Your task to perform on an android device: turn on improve location accuracy Image 0: 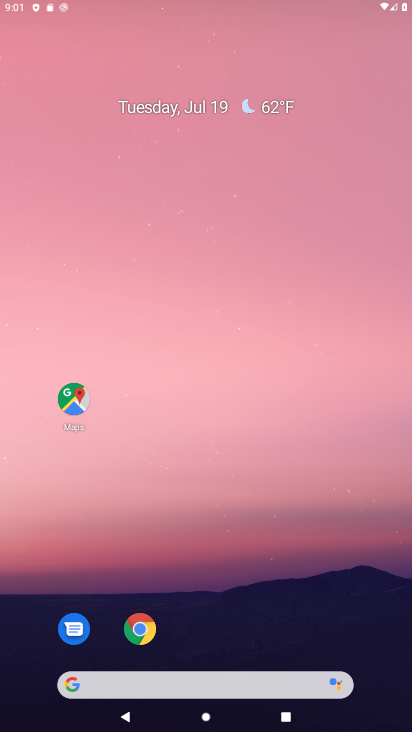
Step 0: press home button
Your task to perform on an android device: turn on improve location accuracy Image 1: 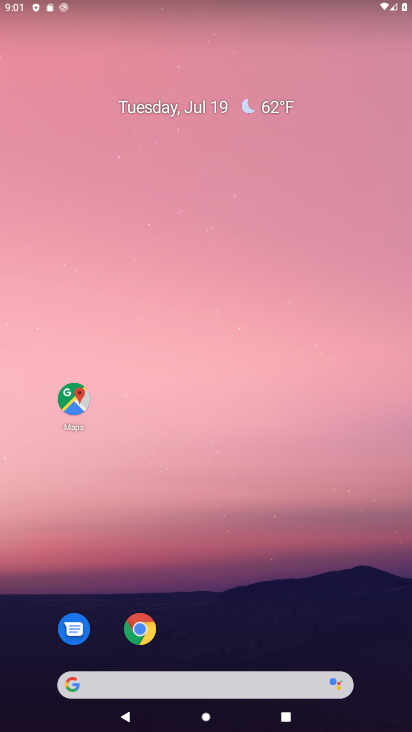
Step 1: drag from (212, 636) to (267, 295)
Your task to perform on an android device: turn on improve location accuracy Image 2: 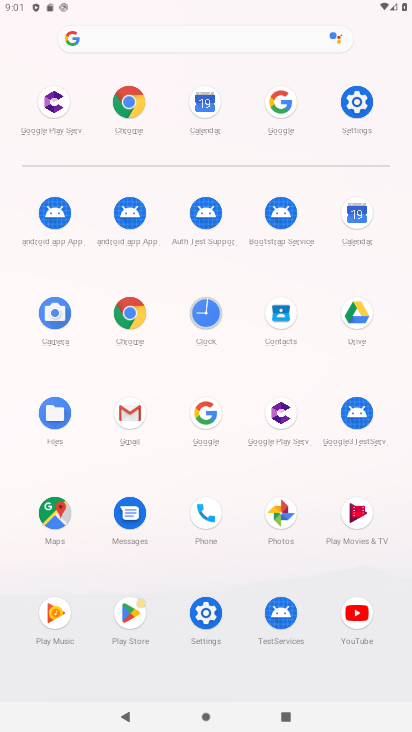
Step 2: click (353, 90)
Your task to perform on an android device: turn on improve location accuracy Image 3: 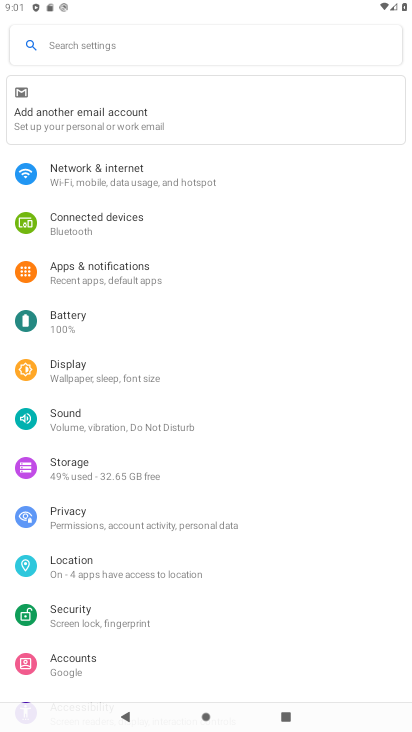
Step 3: click (97, 563)
Your task to perform on an android device: turn on improve location accuracy Image 4: 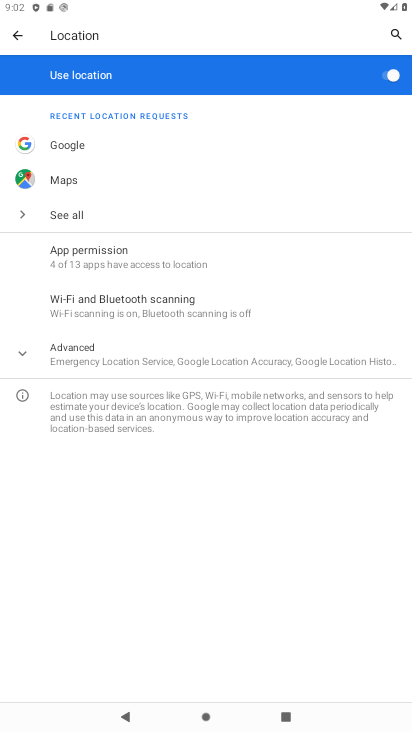
Step 4: click (17, 353)
Your task to perform on an android device: turn on improve location accuracy Image 5: 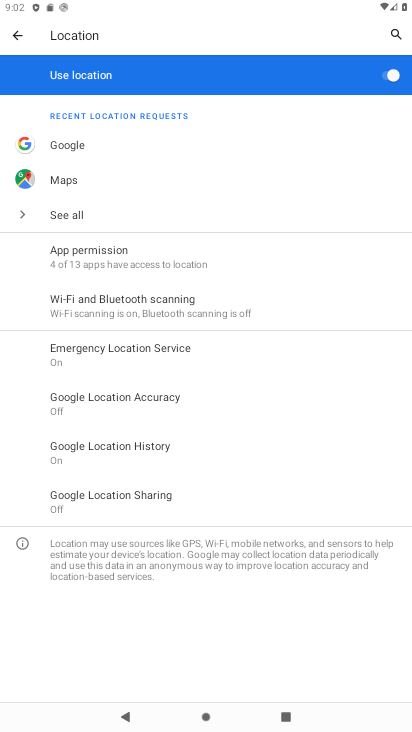
Step 5: click (135, 401)
Your task to perform on an android device: turn on improve location accuracy Image 6: 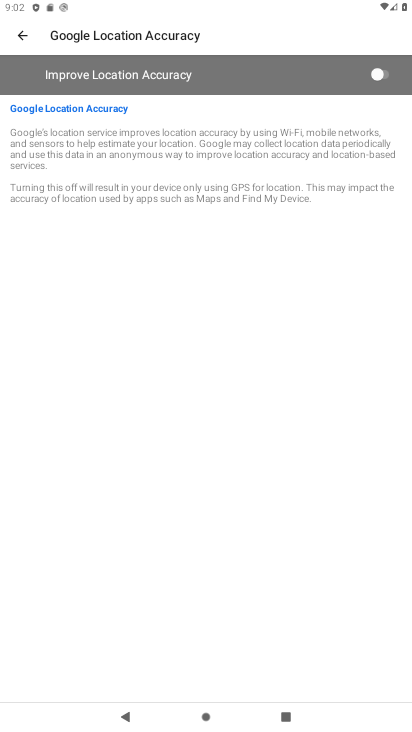
Step 6: click (377, 70)
Your task to perform on an android device: turn on improve location accuracy Image 7: 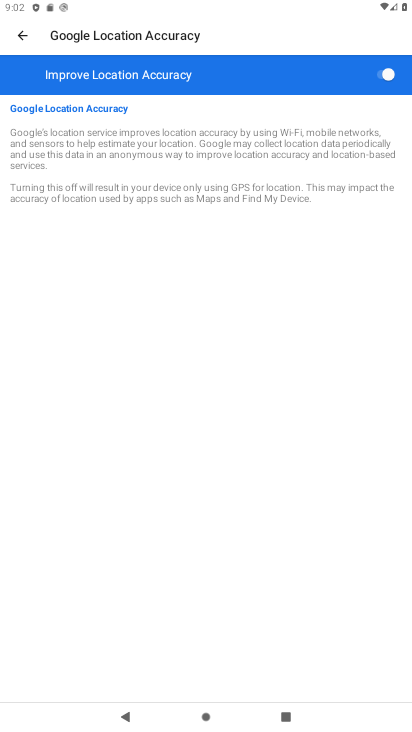
Step 7: task complete